Your task to perform on an android device: Open the map Image 0: 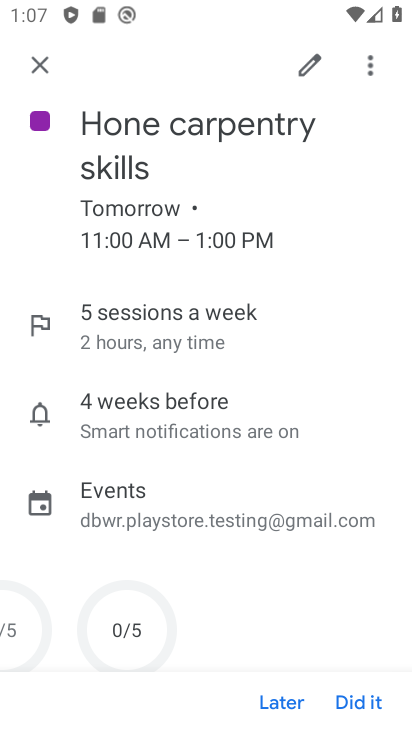
Step 0: press back button
Your task to perform on an android device: Open the map Image 1: 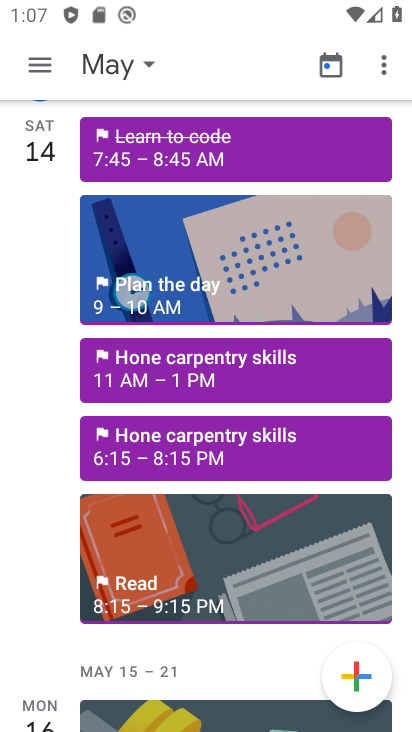
Step 1: press back button
Your task to perform on an android device: Open the map Image 2: 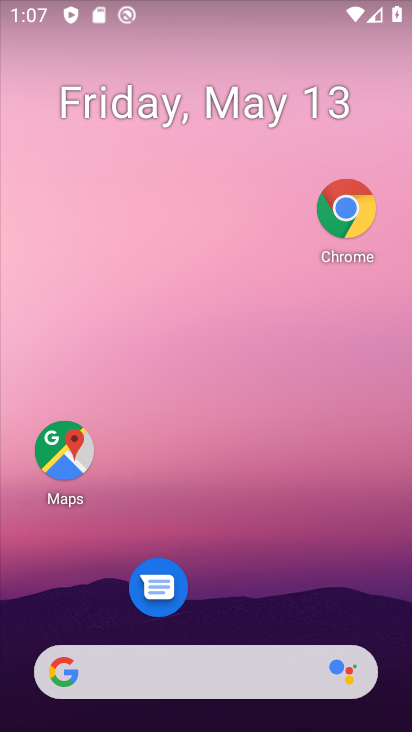
Step 2: click (45, 448)
Your task to perform on an android device: Open the map Image 3: 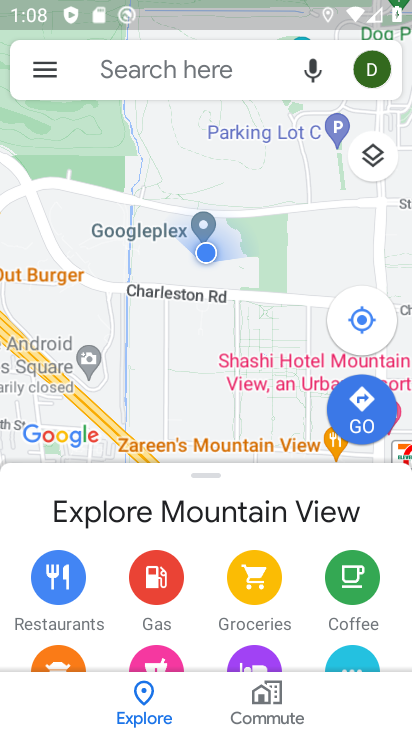
Step 3: task complete